Your task to perform on an android device: Go to Google Image 0: 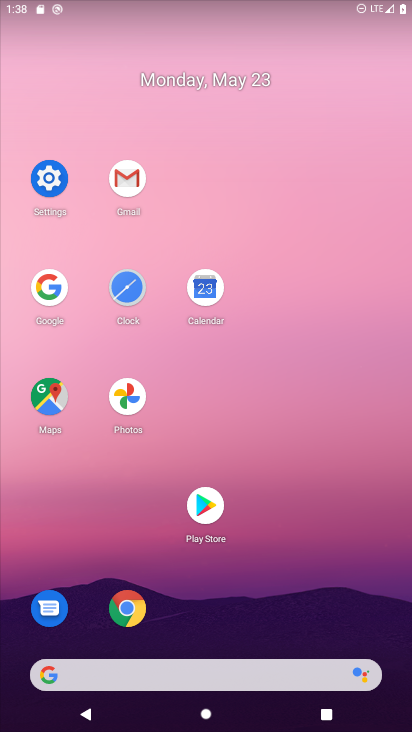
Step 0: click (46, 291)
Your task to perform on an android device: Go to Google Image 1: 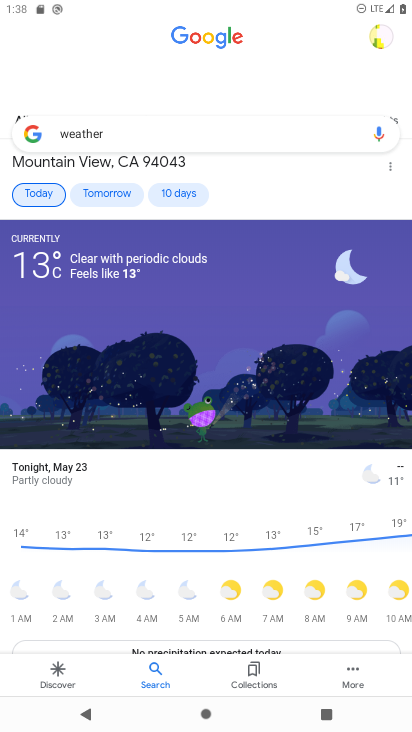
Step 1: task complete